Your task to perform on an android device: turn off data saver in the chrome app Image 0: 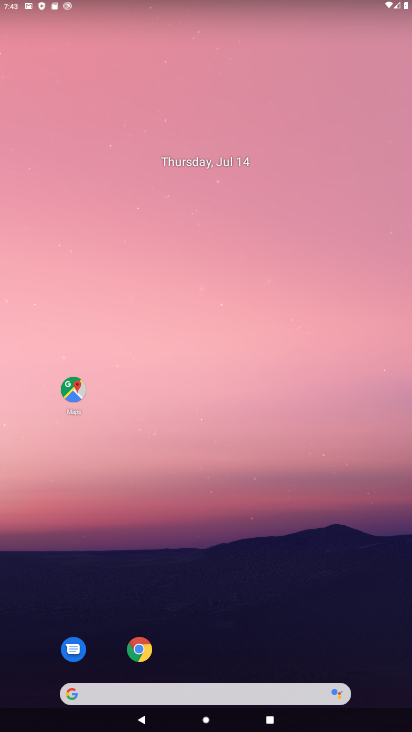
Step 0: press home button
Your task to perform on an android device: turn off data saver in the chrome app Image 1: 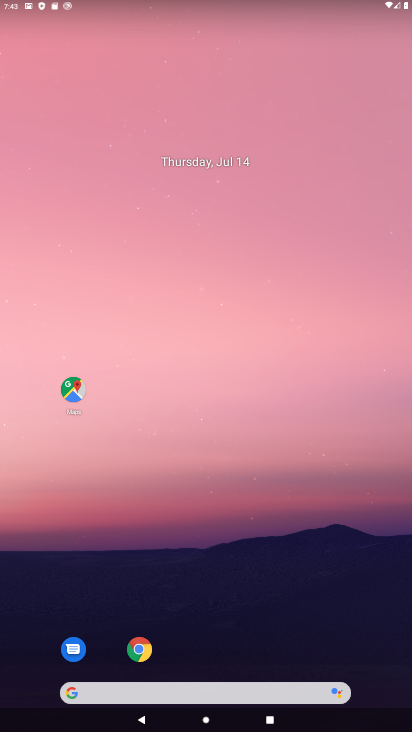
Step 1: click (133, 654)
Your task to perform on an android device: turn off data saver in the chrome app Image 2: 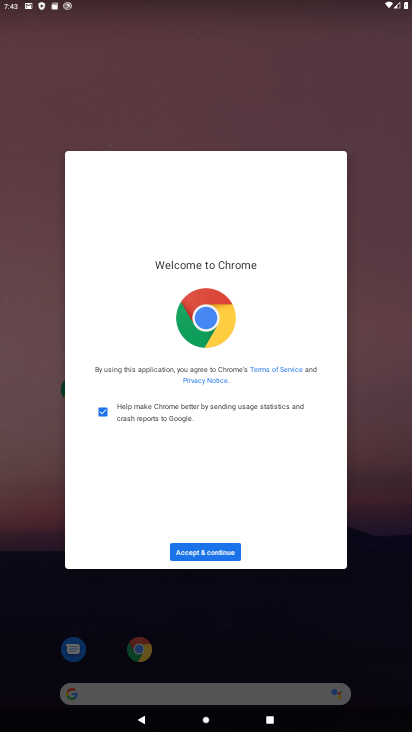
Step 2: click (213, 551)
Your task to perform on an android device: turn off data saver in the chrome app Image 3: 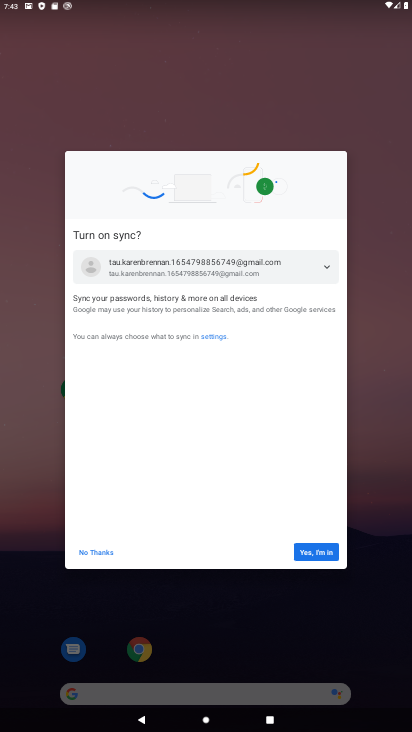
Step 3: click (313, 555)
Your task to perform on an android device: turn off data saver in the chrome app Image 4: 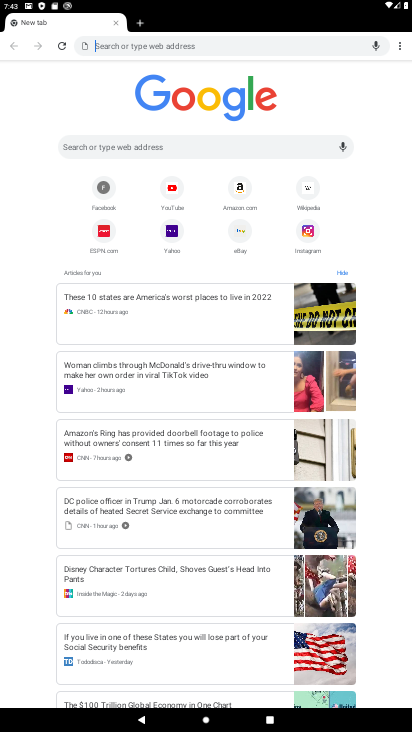
Step 4: press home button
Your task to perform on an android device: turn off data saver in the chrome app Image 5: 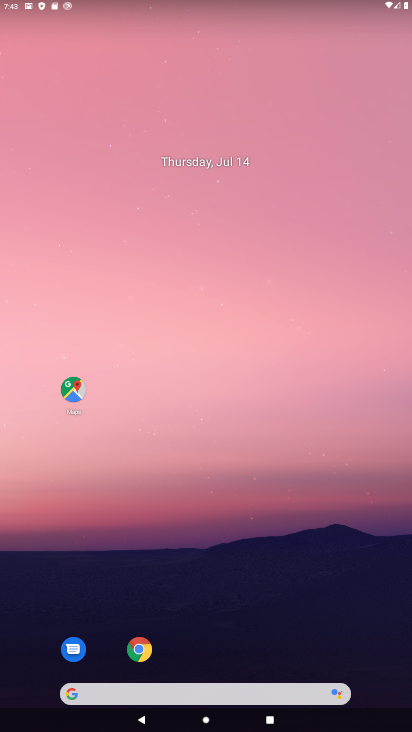
Step 5: click (140, 644)
Your task to perform on an android device: turn off data saver in the chrome app Image 6: 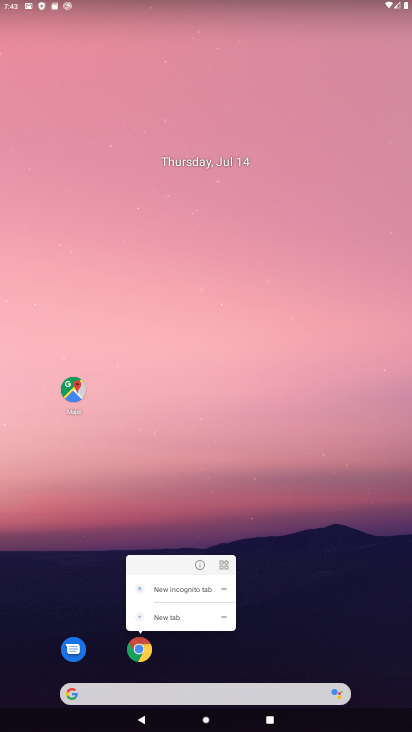
Step 6: click (136, 650)
Your task to perform on an android device: turn off data saver in the chrome app Image 7: 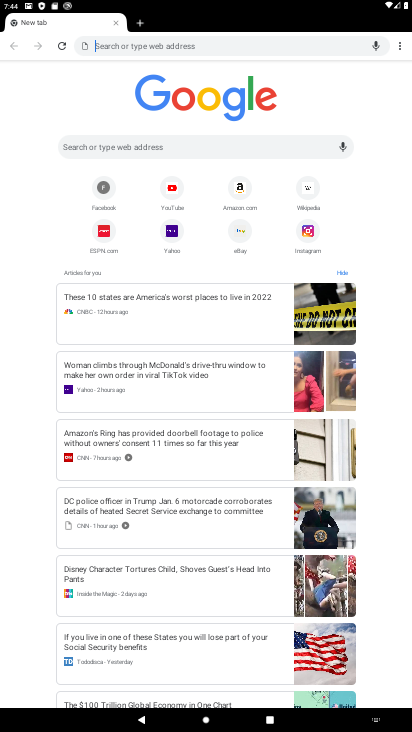
Step 7: click (402, 44)
Your task to perform on an android device: turn off data saver in the chrome app Image 8: 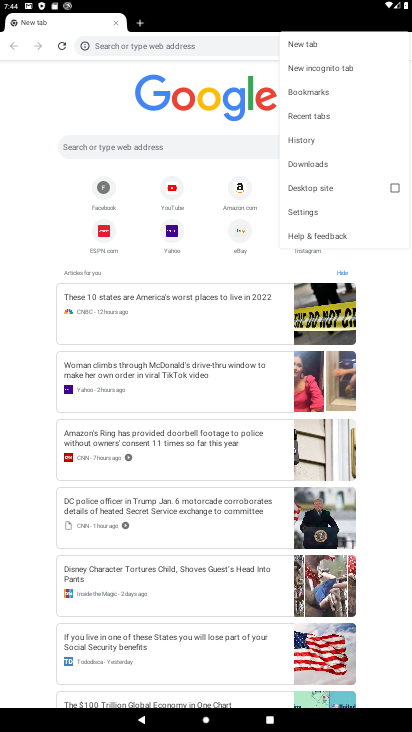
Step 8: click (317, 210)
Your task to perform on an android device: turn off data saver in the chrome app Image 9: 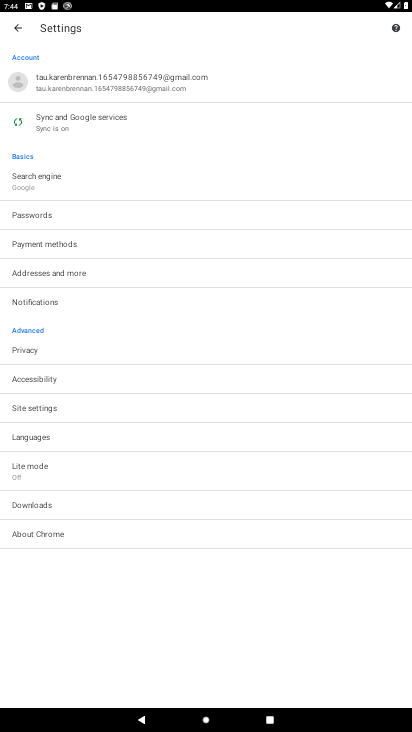
Step 9: click (49, 472)
Your task to perform on an android device: turn off data saver in the chrome app Image 10: 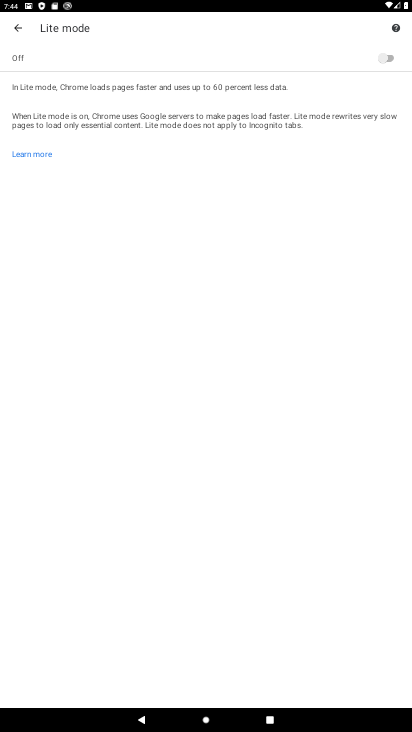
Step 10: task complete